Your task to perform on an android device: open sync settings in chrome Image 0: 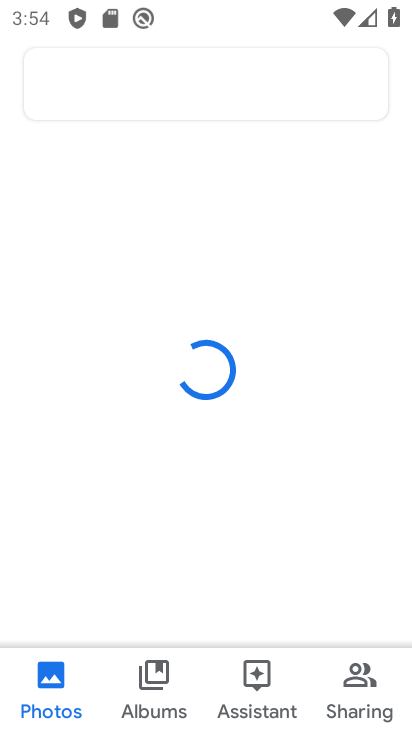
Step 0: press home button
Your task to perform on an android device: open sync settings in chrome Image 1: 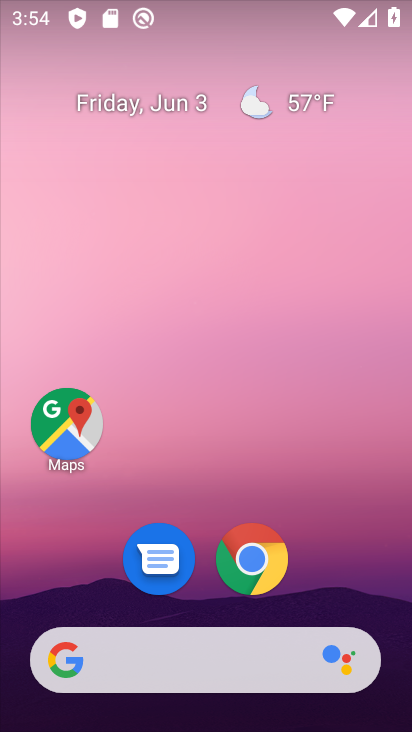
Step 1: click (259, 555)
Your task to perform on an android device: open sync settings in chrome Image 2: 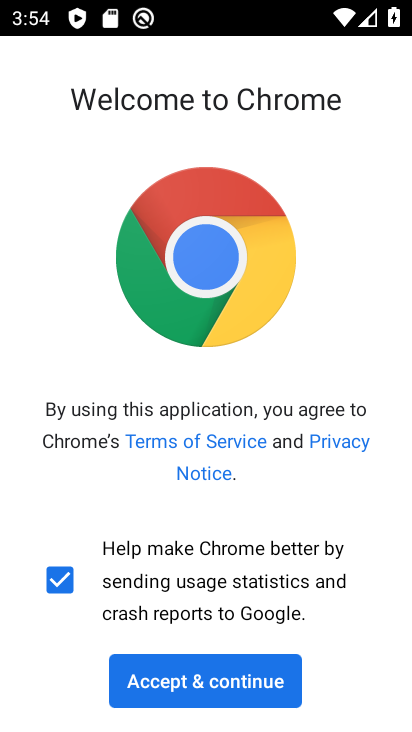
Step 2: click (236, 690)
Your task to perform on an android device: open sync settings in chrome Image 3: 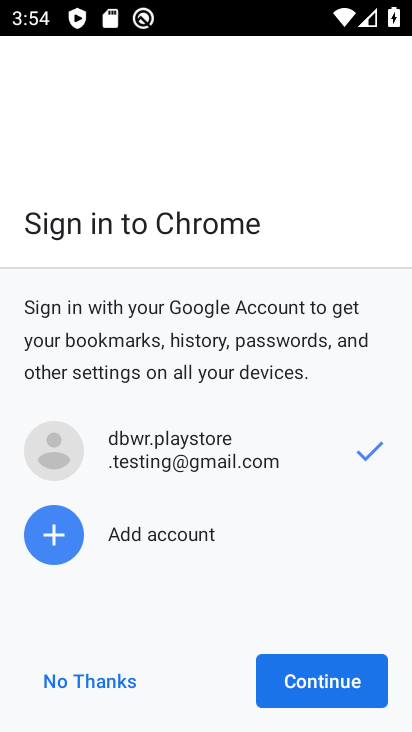
Step 3: click (316, 686)
Your task to perform on an android device: open sync settings in chrome Image 4: 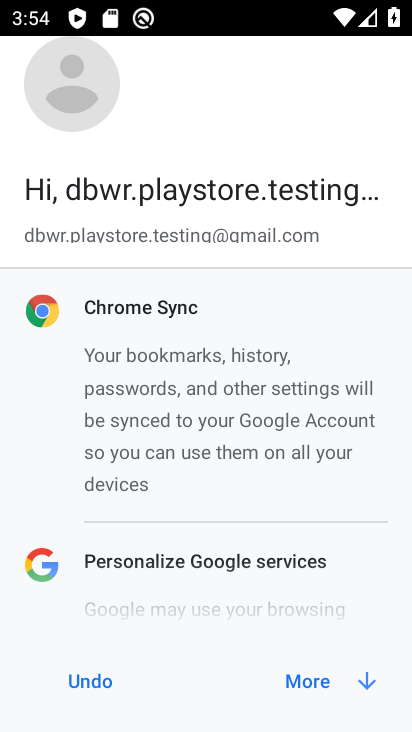
Step 4: click (316, 686)
Your task to perform on an android device: open sync settings in chrome Image 5: 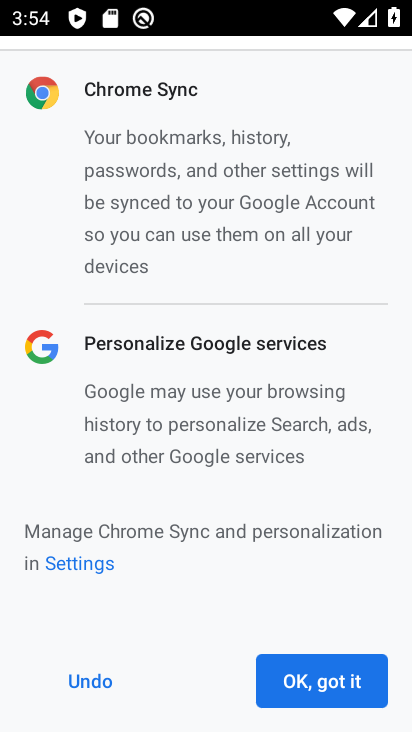
Step 5: click (316, 686)
Your task to perform on an android device: open sync settings in chrome Image 6: 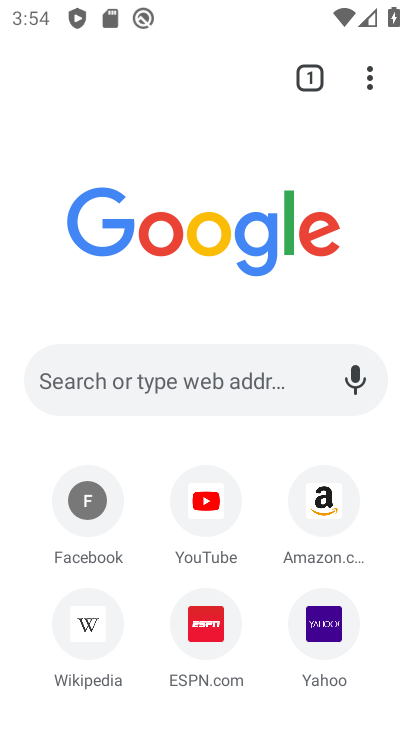
Step 6: drag from (371, 74) to (104, 651)
Your task to perform on an android device: open sync settings in chrome Image 7: 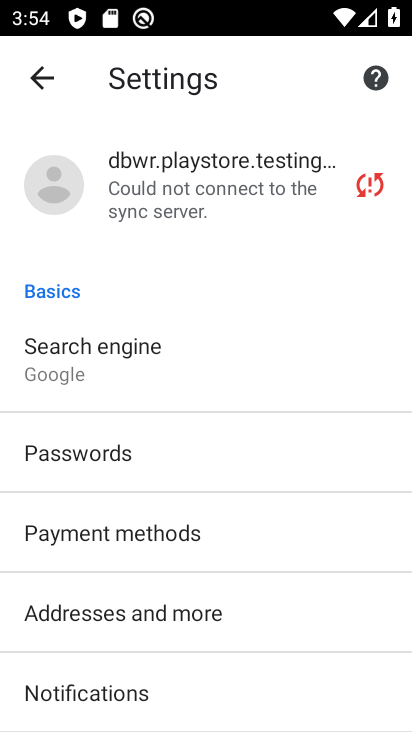
Step 7: click (65, 181)
Your task to perform on an android device: open sync settings in chrome Image 8: 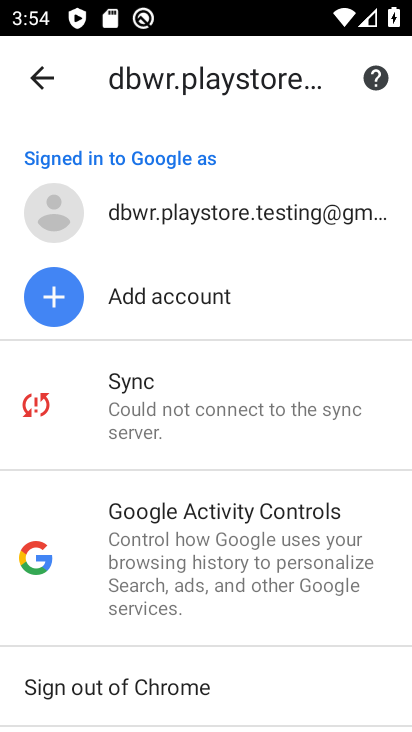
Step 8: click (129, 414)
Your task to perform on an android device: open sync settings in chrome Image 9: 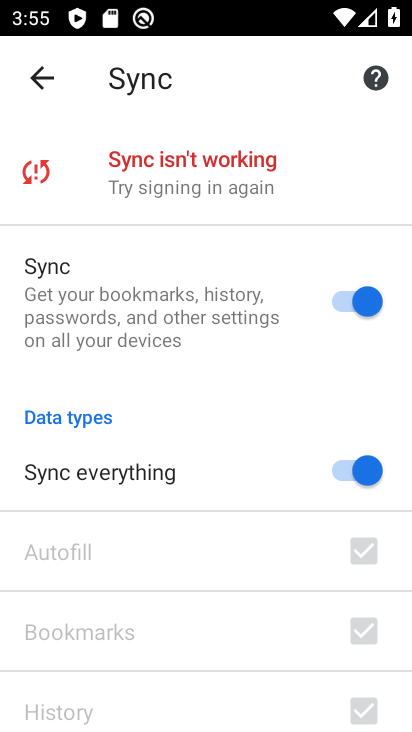
Step 9: task complete